Your task to perform on an android device: change your default location settings in chrome Image 0: 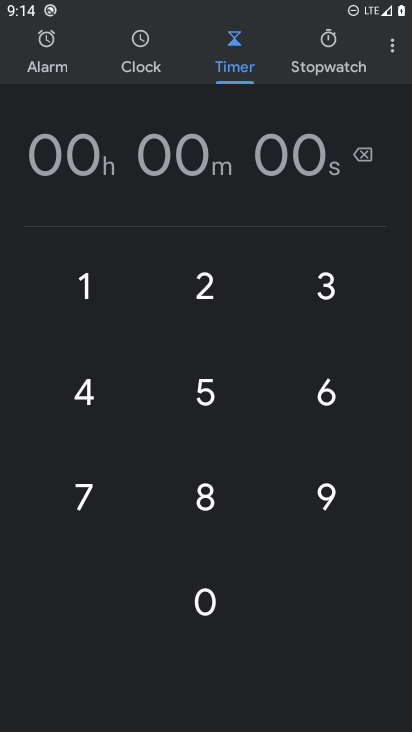
Step 0: press home button
Your task to perform on an android device: change your default location settings in chrome Image 1: 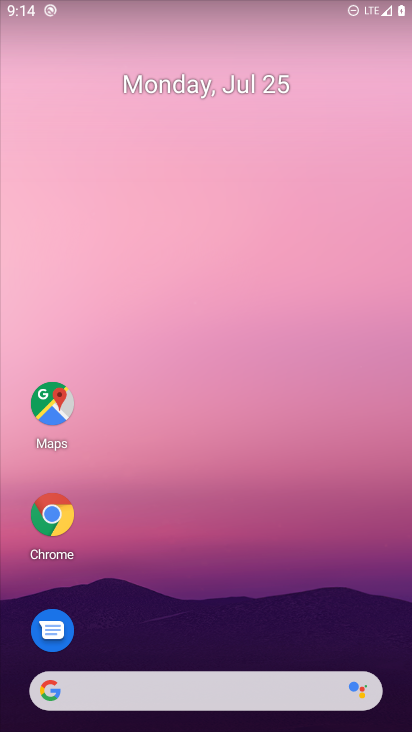
Step 1: drag from (65, 526) to (148, 257)
Your task to perform on an android device: change your default location settings in chrome Image 2: 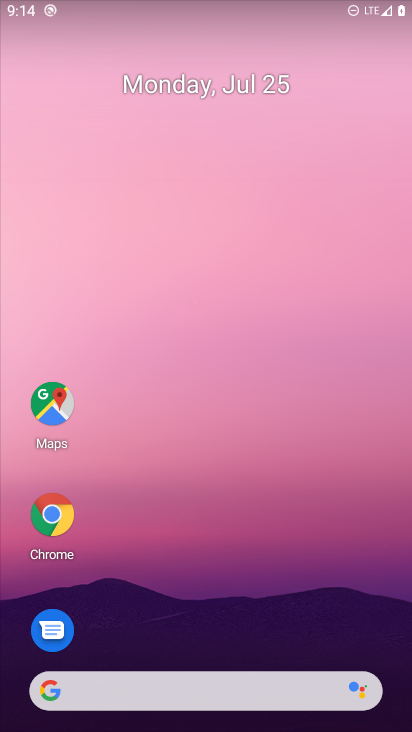
Step 2: drag from (6, 693) to (227, 126)
Your task to perform on an android device: change your default location settings in chrome Image 3: 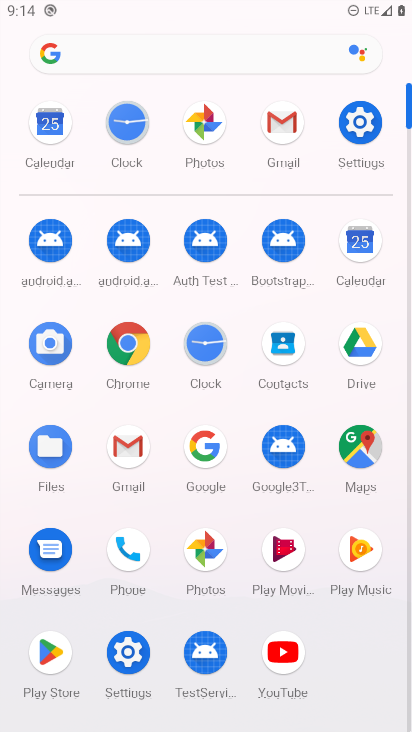
Step 3: click (135, 656)
Your task to perform on an android device: change your default location settings in chrome Image 4: 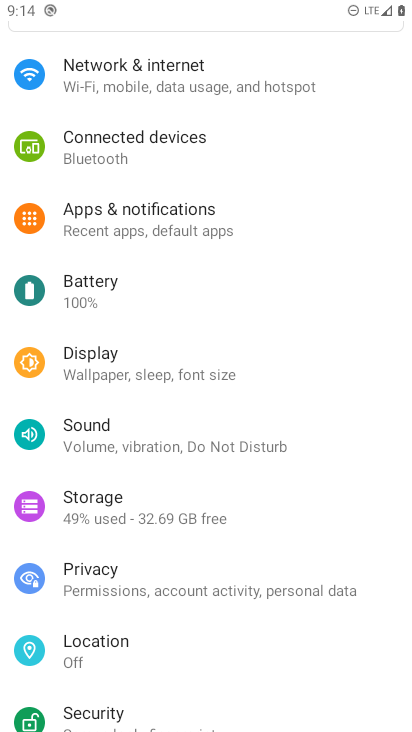
Step 4: click (130, 656)
Your task to perform on an android device: change your default location settings in chrome Image 5: 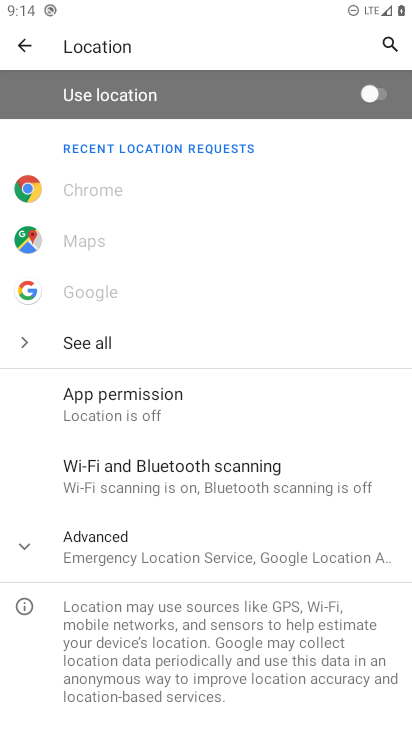
Step 5: click (380, 97)
Your task to perform on an android device: change your default location settings in chrome Image 6: 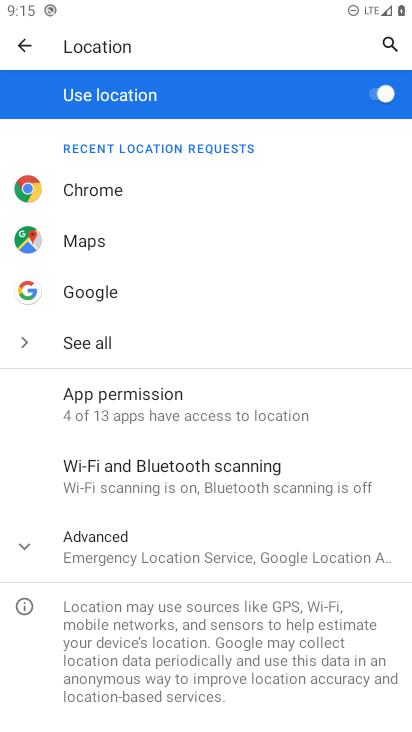
Step 6: task complete